Your task to perform on an android device: turn on the 24-hour format for clock Image 0: 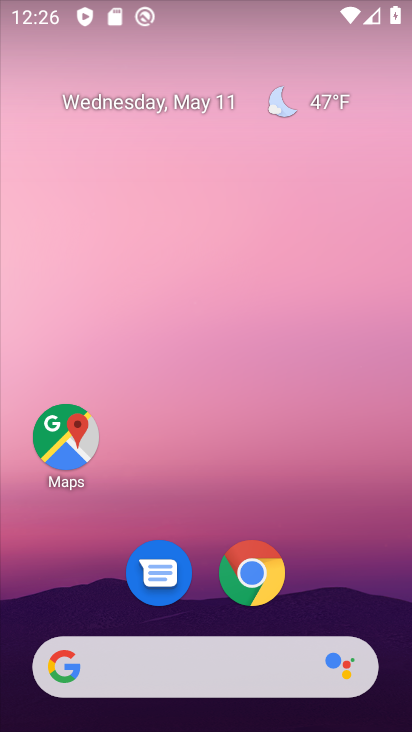
Step 0: press home button
Your task to perform on an android device: turn on the 24-hour format for clock Image 1: 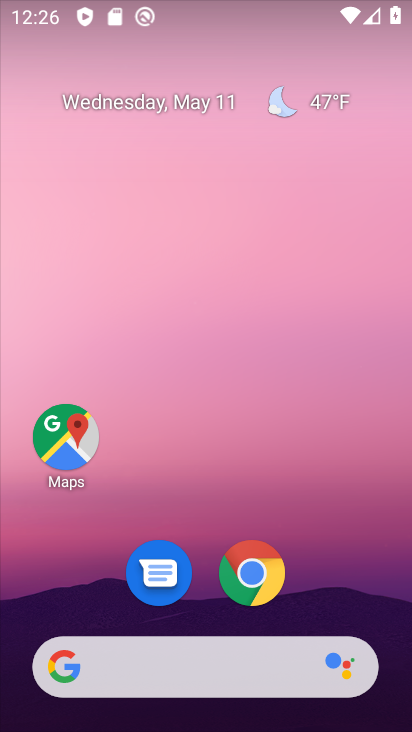
Step 1: drag from (350, 604) to (346, 89)
Your task to perform on an android device: turn on the 24-hour format for clock Image 2: 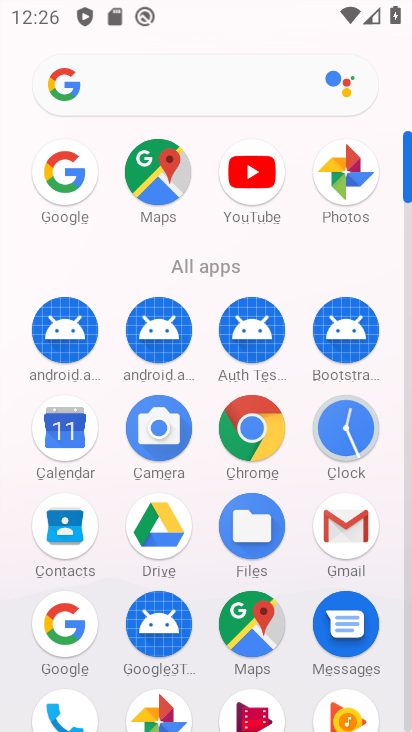
Step 2: click (411, 714)
Your task to perform on an android device: turn on the 24-hour format for clock Image 3: 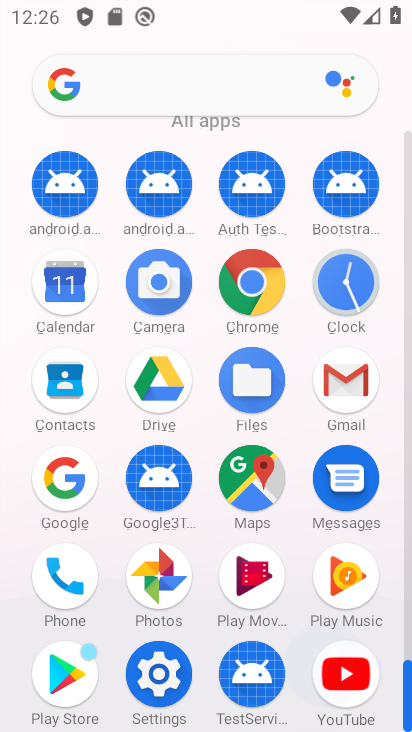
Step 3: drag from (411, 714) to (191, 730)
Your task to perform on an android device: turn on the 24-hour format for clock Image 4: 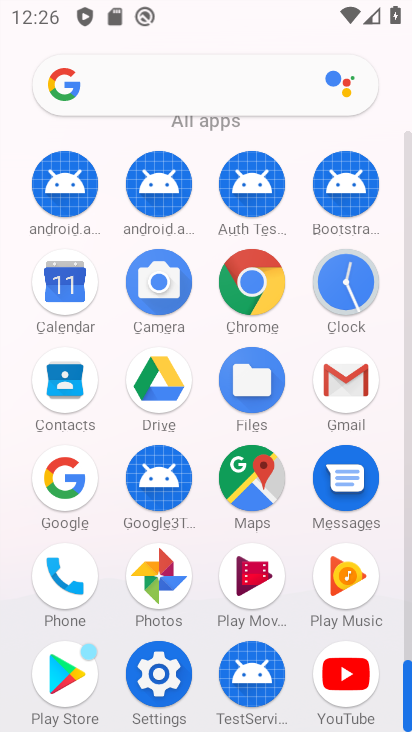
Step 4: click (357, 268)
Your task to perform on an android device: turn on the 24-hour format for clock Image 5: 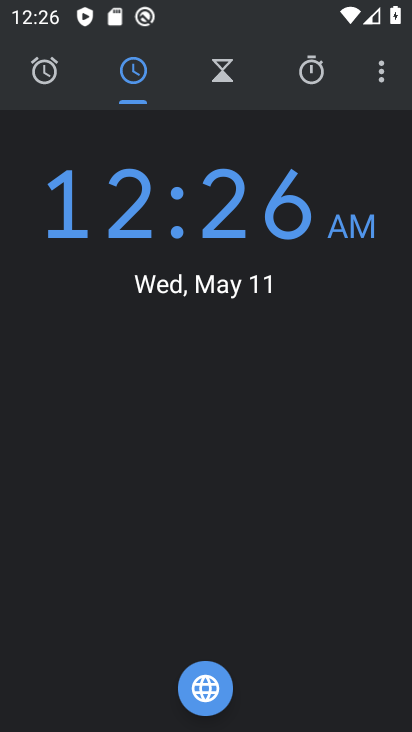
Step 5: click (391, 82)
Your task to perform on an android device: turn on the 24-hour format for clock Image 6: 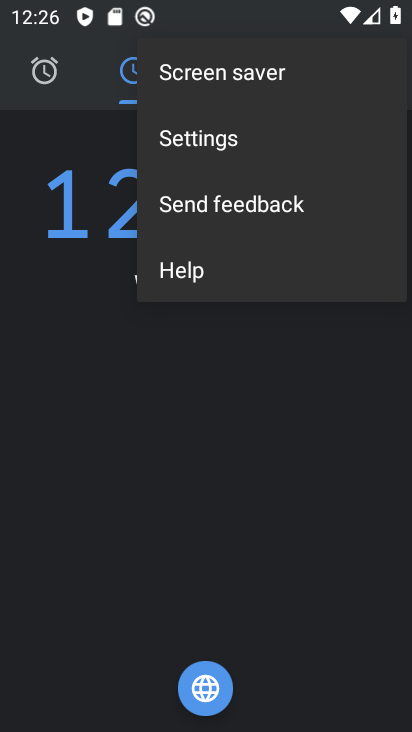
Step 6: click (193, 136)
Your task to perform on an android device: turn on the 24-hour format for clock Image 7: 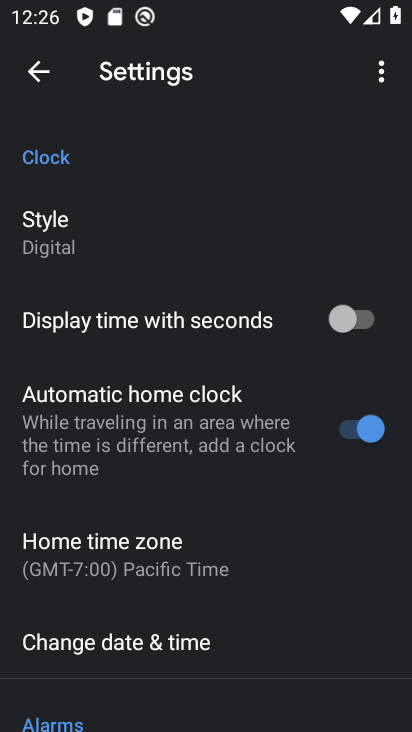
Step 7: click (209, 633)
Your task to perform on an android device: turn on the 24-hour format for clock Image 8: 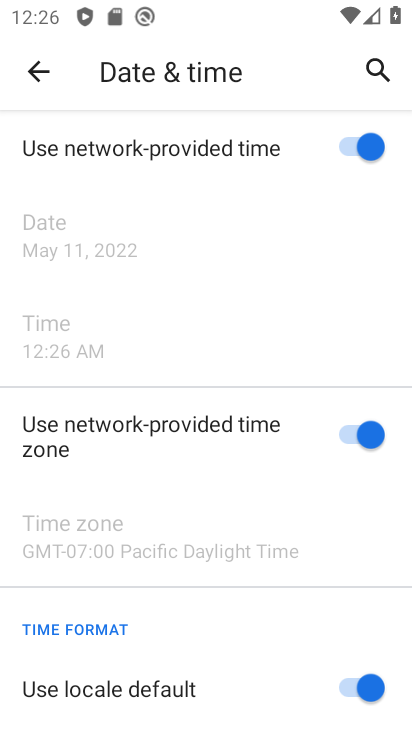
Step 8: drag from (200, 609) to (156, 167)
Your task to perform on an android device: turn on the 24-hour format for clock Image 9: 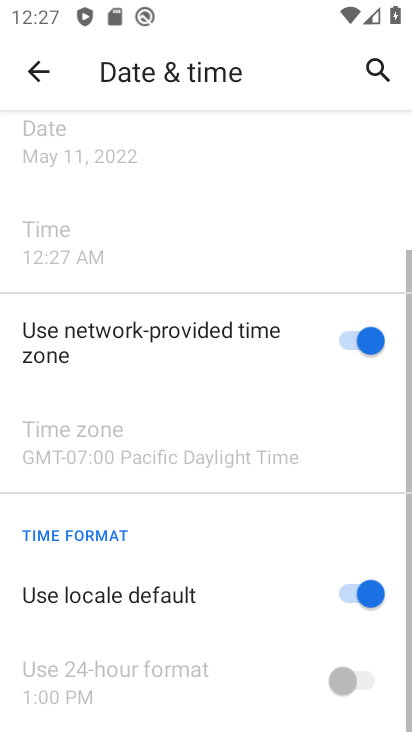
Step 9: click (388, 594)
Your task to perform on an android device: turn on the 24-hour format for clock Image 10: 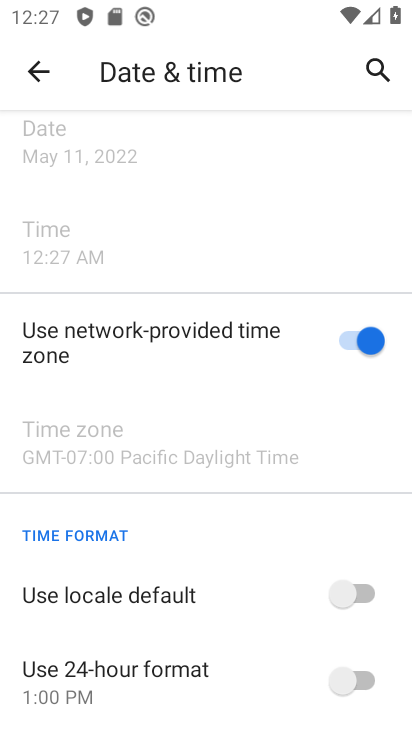
Step 10: click (365, 683)
Your task to perform on an android device: turn on the 24-hour format for clock Image 11: 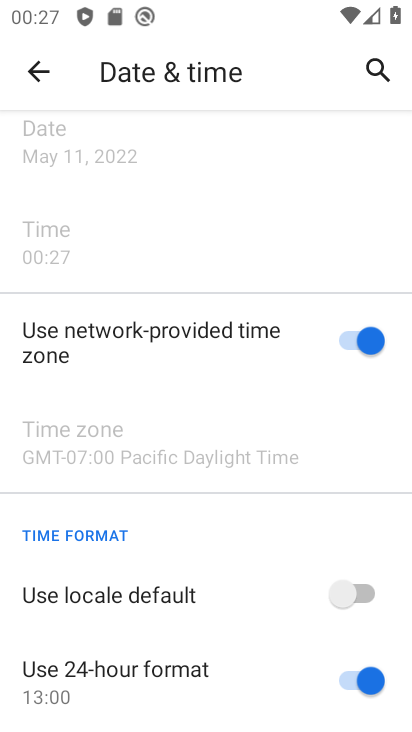
Step 11: task complete